Your task to perform on an android device: change the clock display to show seconds Image 0: 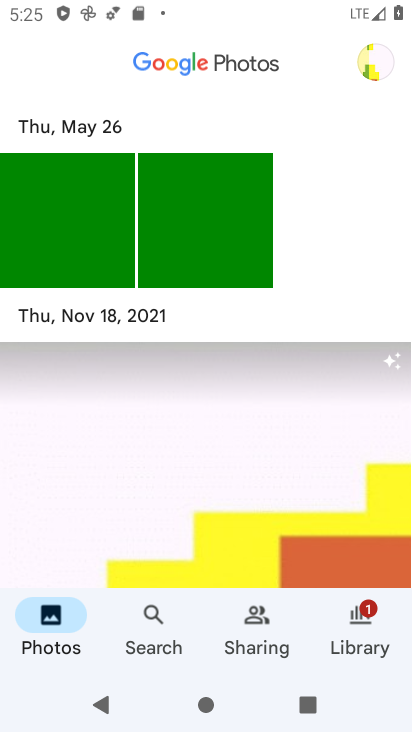
Step 0: press back button
Your task to perform on an android device: change the clock display to show seconds Image 1: 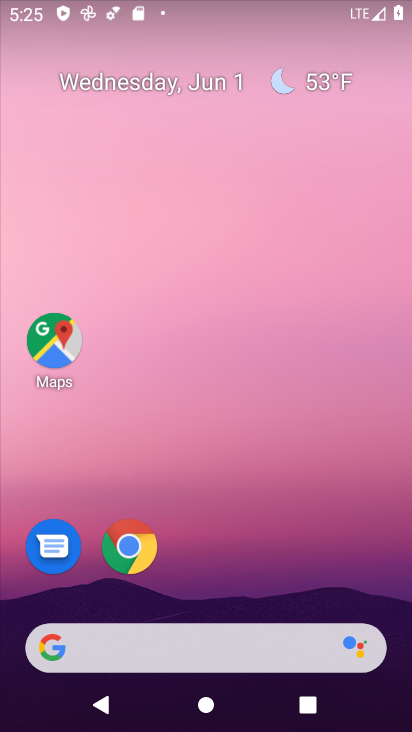
Step 1: drag from (303, 537) to (220, 3)
Your task to perform on an android device: change the clock display to show seconds Image 2: 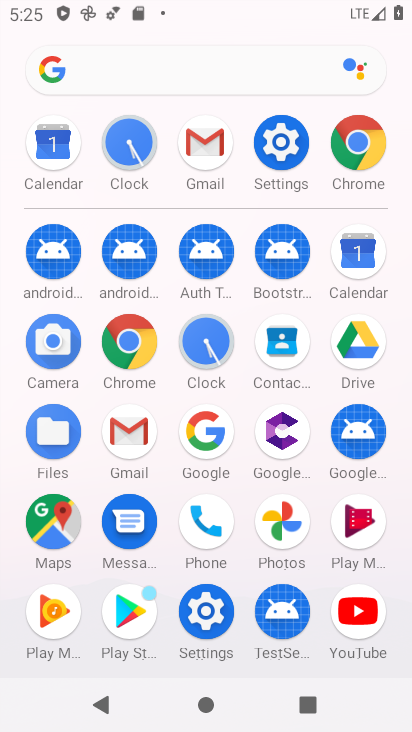
Step 2: drag from (11, 551) to (0, 183)
Your task to perform on an android device: change the clock display to show seconds Image 3: 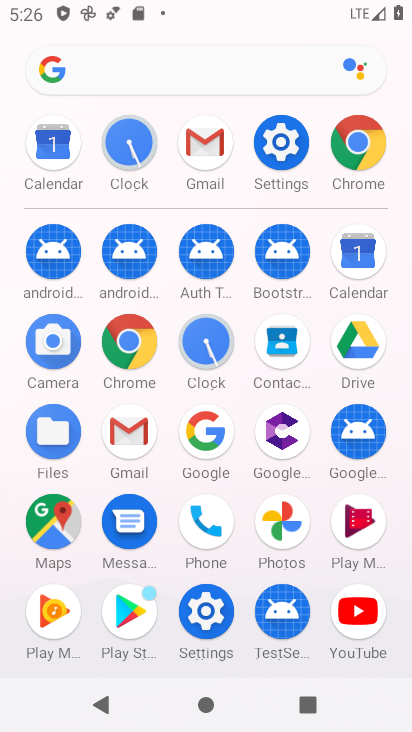
Step 3: click (125, 138)
Your task to perform on an android device: change the clock display to show seconds Image 4: 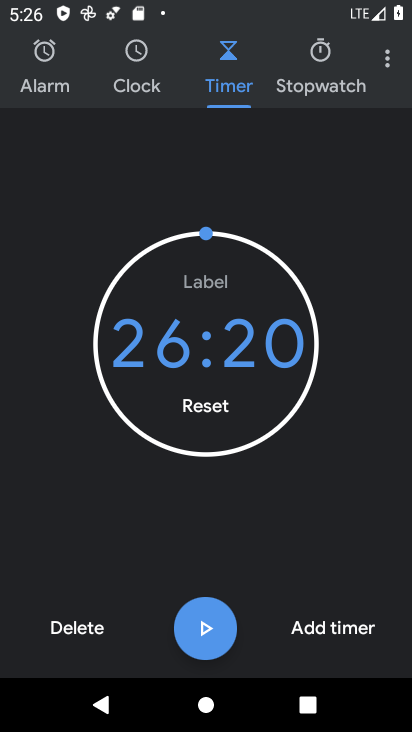
Step 4: task complete